Your task to perform on an android device: Show me popular games on the Play Store Image 0: 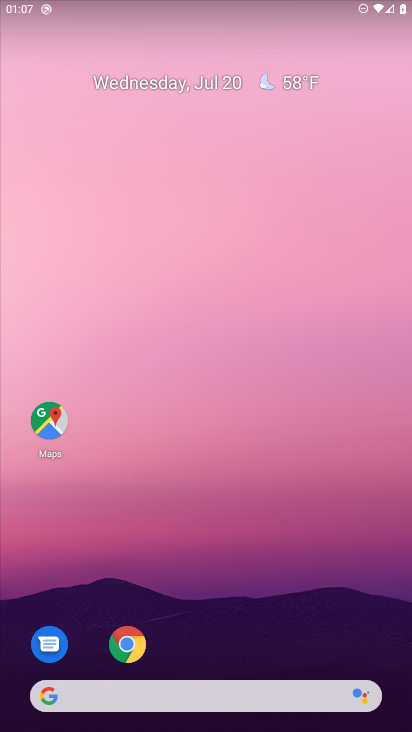
Step 0: drag from (48, 676) to (115, 349)
Your task to perform on an android device: Show me popular games on the Play Store Image 1: 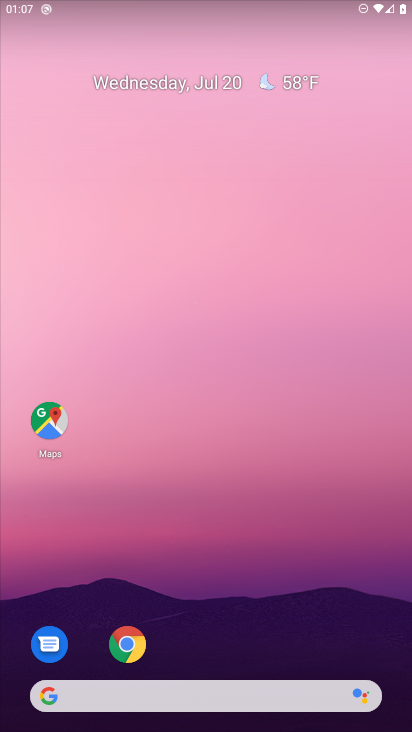
Step 1: drag from (69, 706) to (139, 97)
Your task to perform on an android device: Show me popular games on the Play Store Image 2: 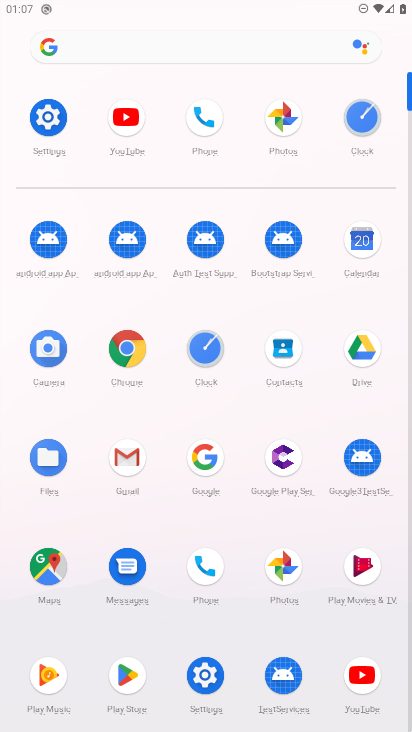
Step 2: click (119, 670)
Your task to perform on an android device: Show me popular games on the Play Store Image 3: 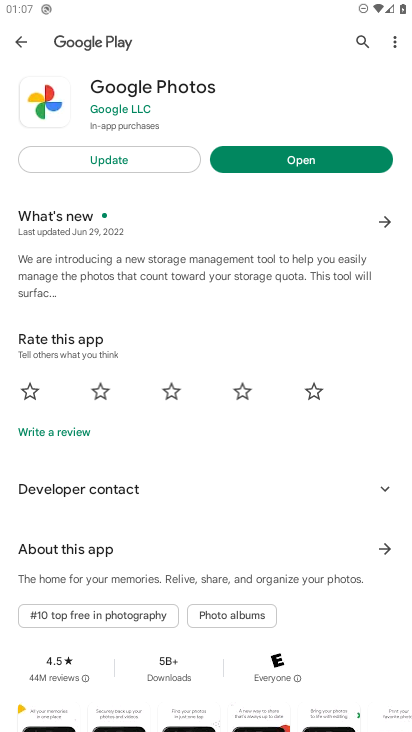
Step 3: click (27, 39)
Your task to perform on an android device: Show me popular games on the Play Store Image 4: 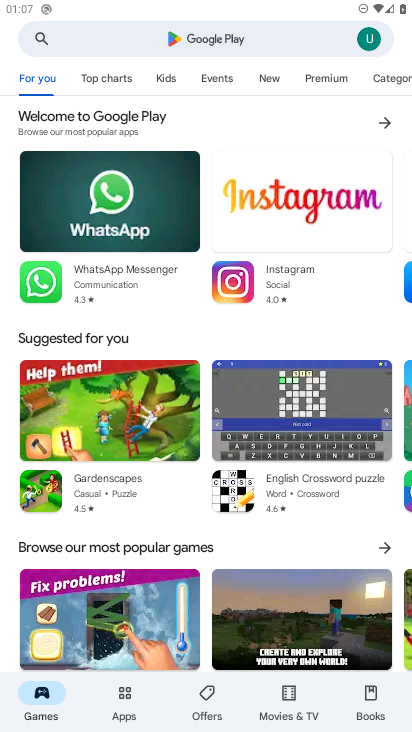
Step 4: click (74, 40)
Your task to perform on an android device: Show me popular games on the Play Store Image 5: 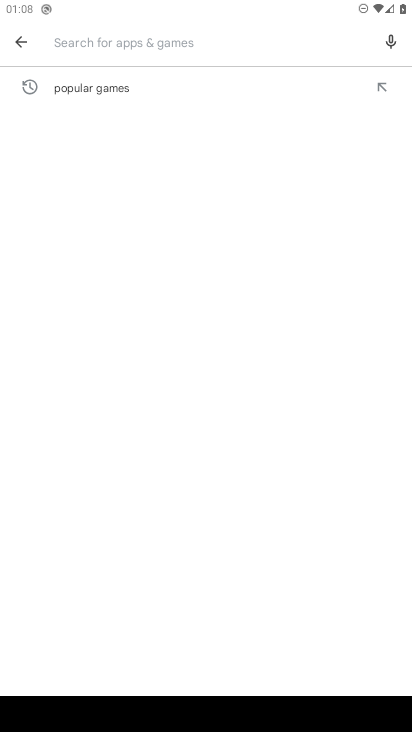
Step 5: type " popular games "
Your task to perform on an android device: Show me popular games on the Play Store Image 6: 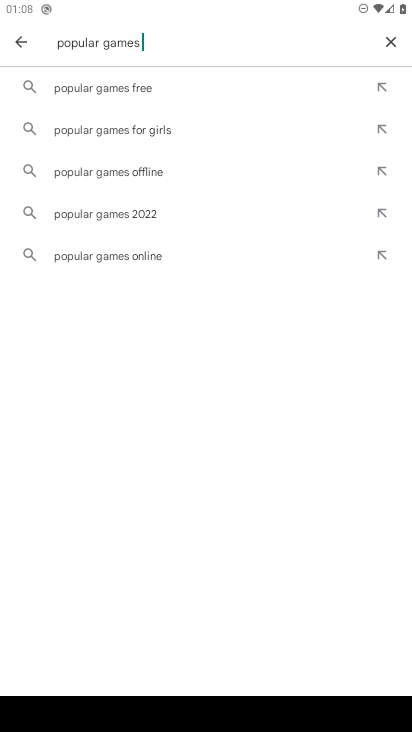
Step 6: task complete